Your task to perform on an android device: Go to wifi settings Image 0: 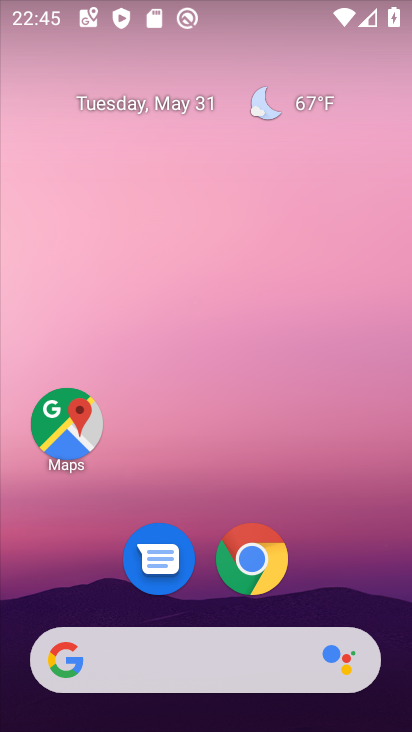
Step 0: drag from (352, 445) to (285, 67)
Your task to perform on an android device: Go to wifi settings Image 1: 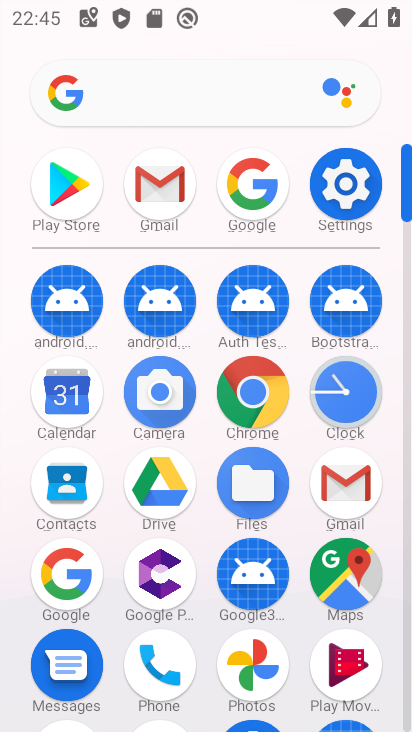
Step 1: click (345, 188)
Your task to perform on an android device: Go to wifi settings Image 2: 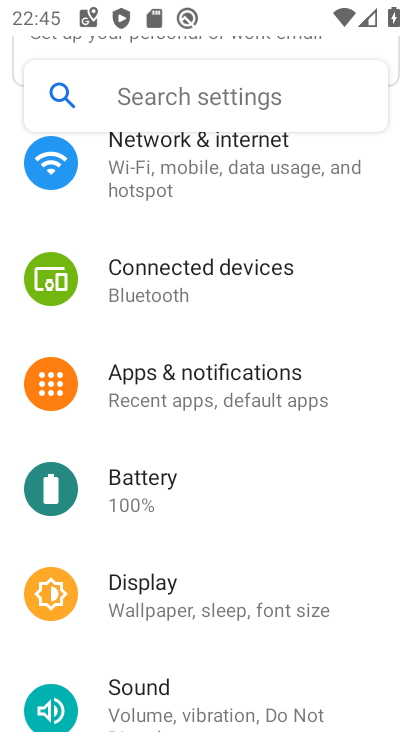
Step 2: click (185, 172)
Your task to perform on an android device: Go to wifi settings Image 3: 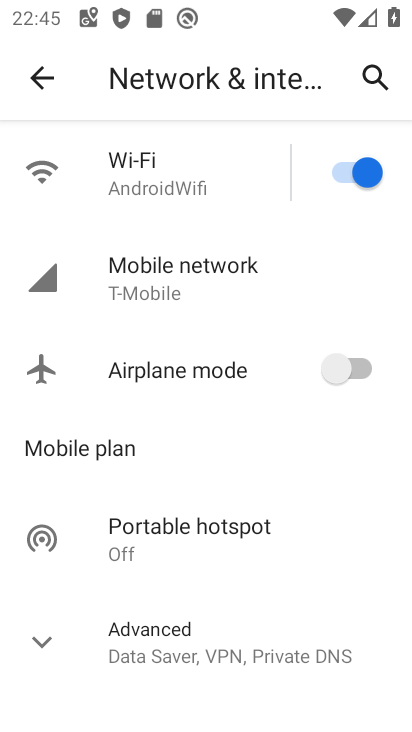
Step 3: click (169, 158)
Your task to perform on an android device: Go to wifi settings Image 4: 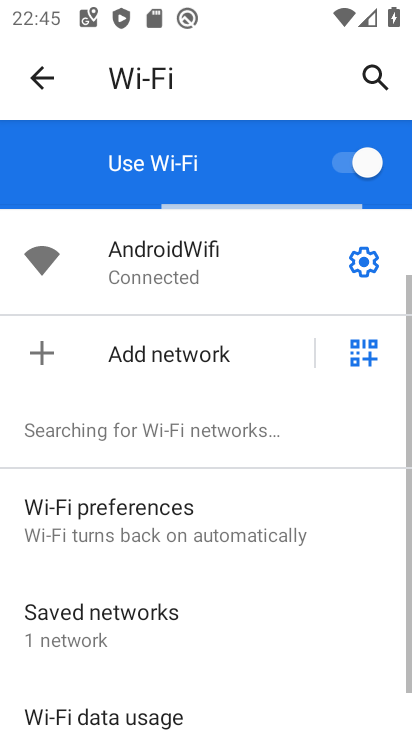
Step 4: click (185, 260)
Your task to perform on an android device: Go to wifi settings Image 5: 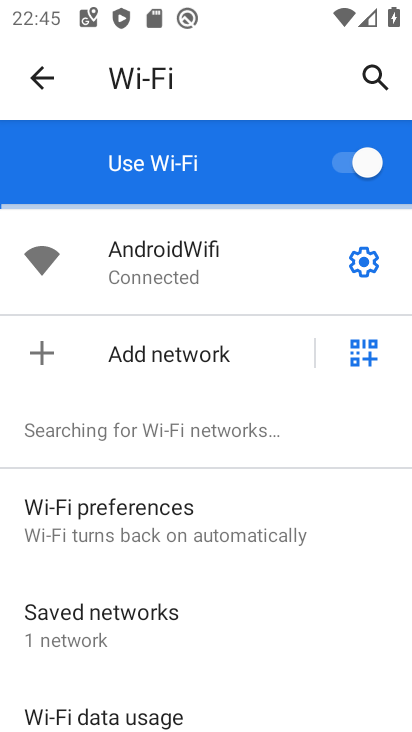
Step 5: click (229, 266)
Your task to perform on an android device: Go to wifi settings Image 6: 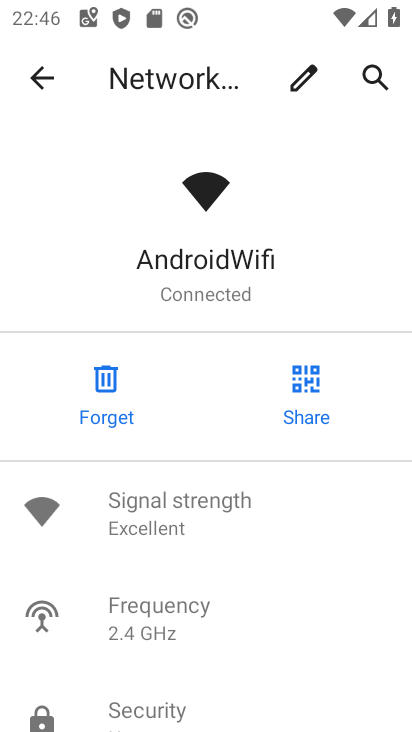
Step 6: task complete